Your task to perform on an android device: Open eBay Image 0: 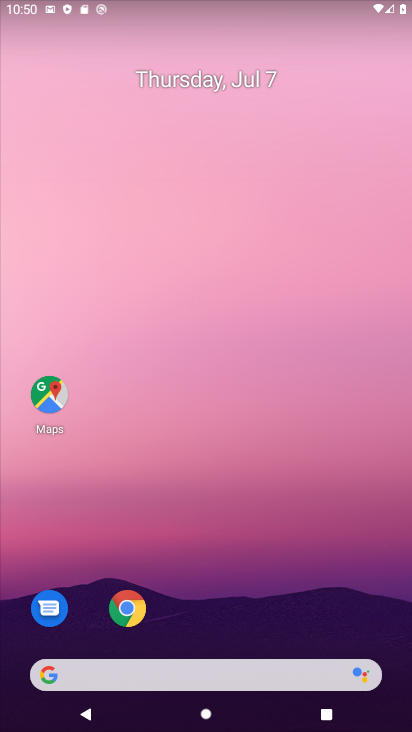
Step 0: click (174, 675)
Your task to perform on an android device: Open eBay Image 1: 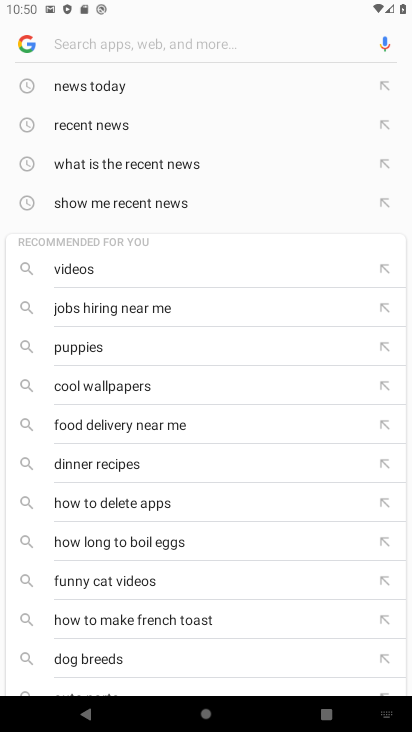
Step 1: type "eBay"
Your task to perform on an android device: Open eBay Image 2: 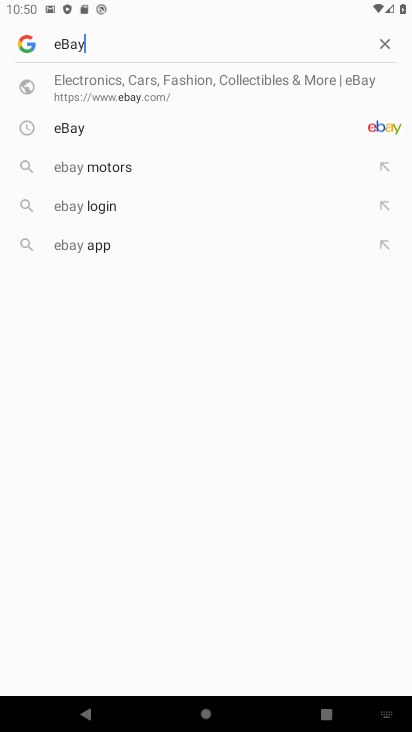
Step 2: click (90, 128)
Your task to perform on an android device: Open eBay Image 3: 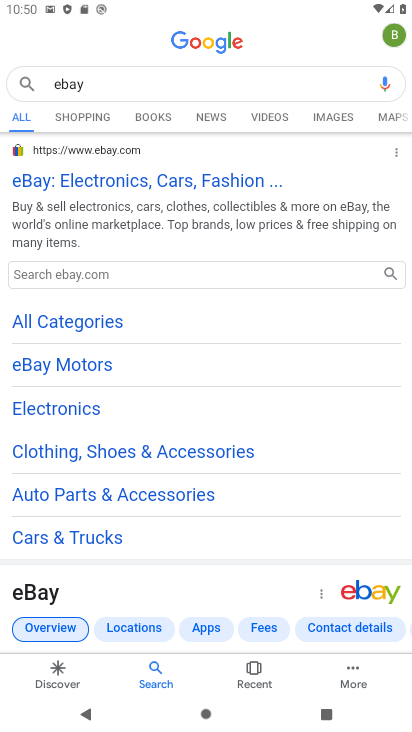
Step 3: task complete